Your task to perform on an android device: turn on translation in the chrome app Image 0: 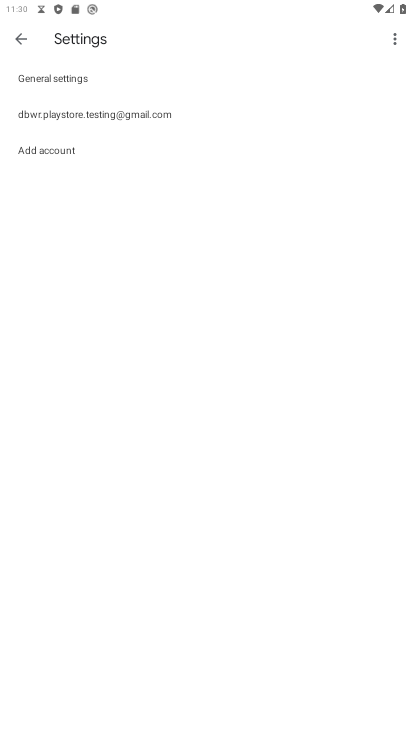
Step 0: press home button
Your task to perform on an android device: turn on translation in the chrome app Image 1: 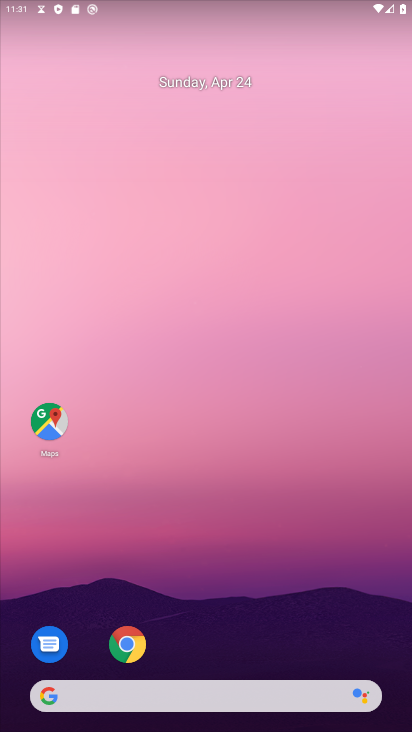
Step 1: click (128, 644)
Your task to perform on an android device: turn on translation in the chrome app Image 2: 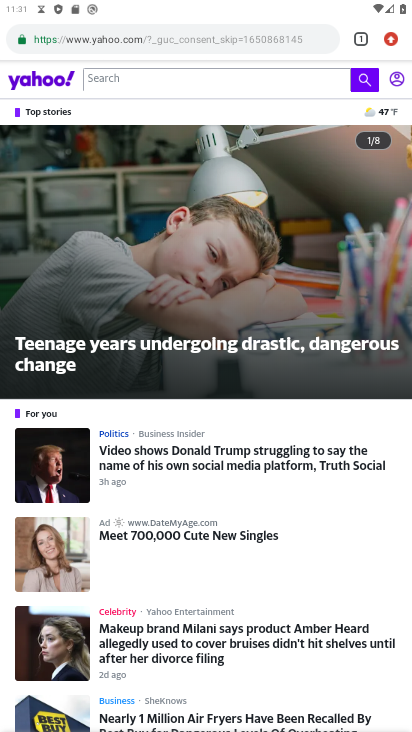
Step 2: drag from (392, 39) to (257, 518)
Your task to perform on an android device: turn on translation in the chrome app Image 3: 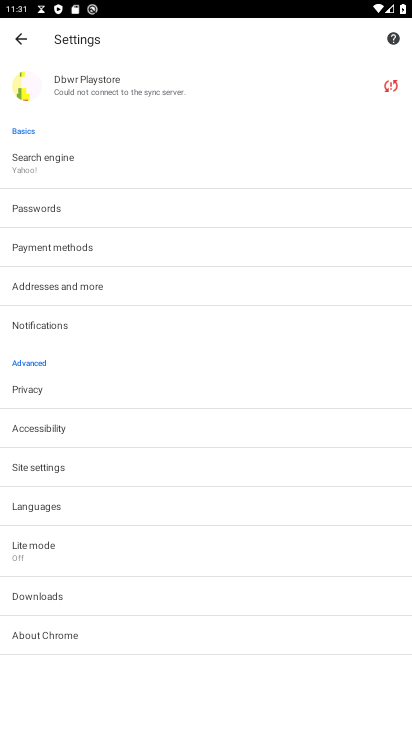
Step 3: click (44, 514)
Your task to perform on an android device: turn on translation in the chrome app Image 4: 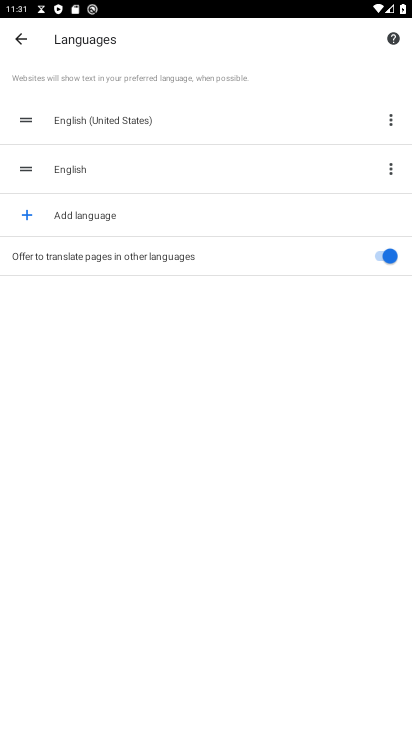
Step 4: task complete